Your task to perform on an android device: toggle show notifications on the lock screen Image 0: 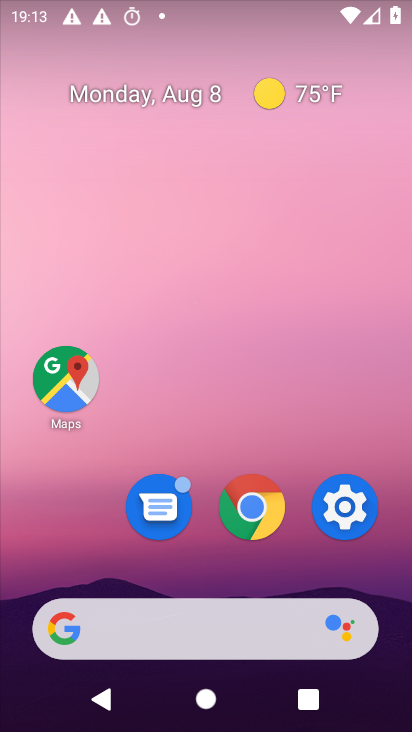
Step 0: drag from (252, 652) to (259, 165)
Your task to perform on an android device: toggle show notifications on the lock screen Image 1: 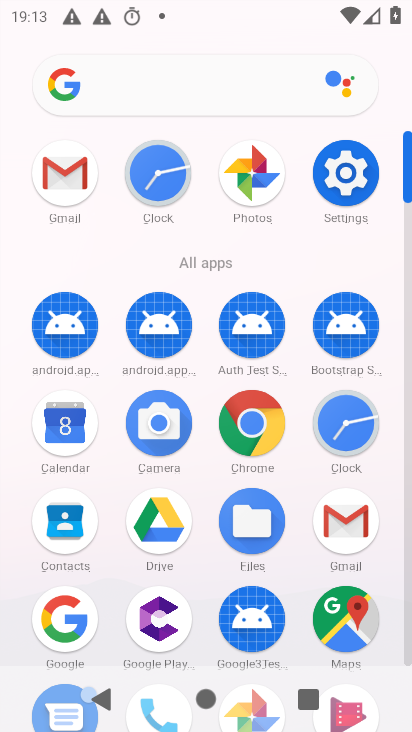
Step 1: click (336, 179)
Your task to perform on an android device: toggle show notifications on the lock screen Image 2: 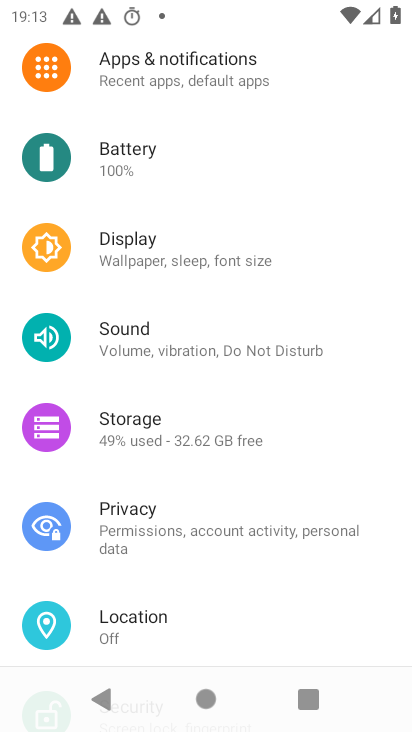
Step 2: drag from (148, 166) to (188, 327)
Your task to perform on an android device: toggle show notifications on the lock screen Image 3: 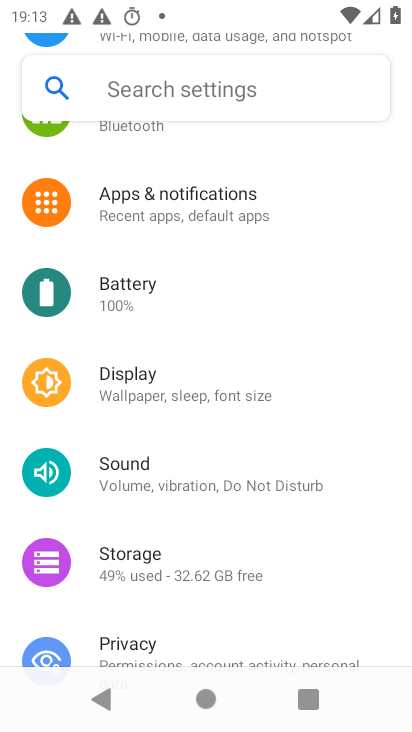
Step 3: click (154, 87)
Your task to perform on an android device: toggle show notifications on the lock screen Image 4: 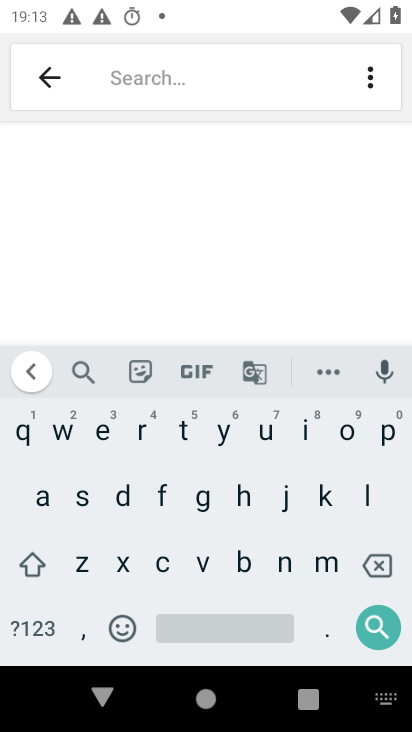
Step 4: click (287, 566)
Your task to perform on an android device: toggle show notifications on the lock screen Image 5: 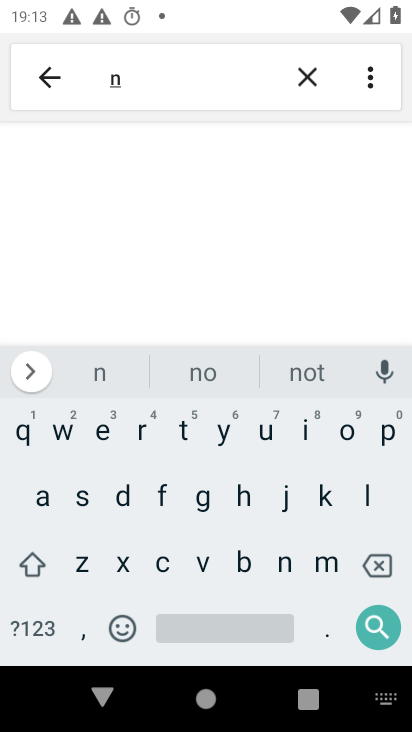
Step 5: click (342, 434)
Your task to perform on an android device: toggle show notifications on the lock screen Image 6: 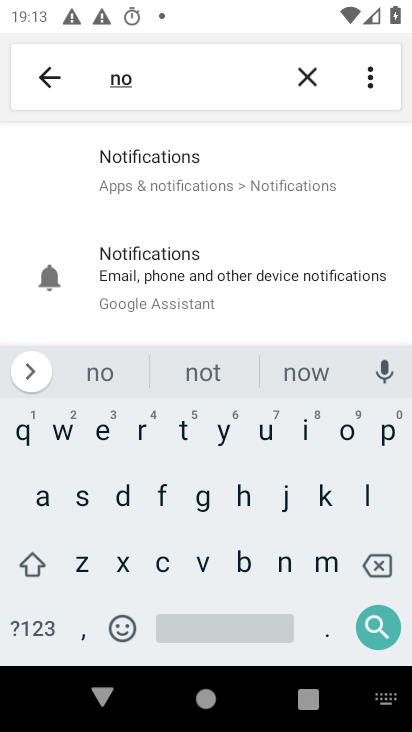
Step 6: click (169, 170)
Your task to perform on an android device: toggle show notifications on the lock screen Image 7: 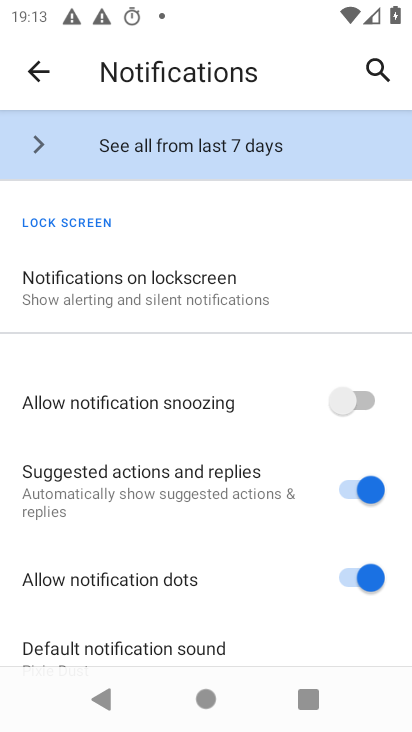
Step 7: click (122, 276)
Your task to perform on an android device: toggle show notifications on the lock screen Image 8: 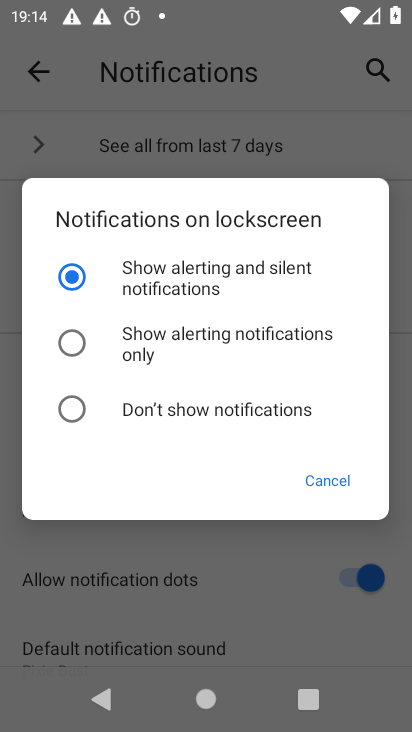
Step 8: task complete